Your task to perform on an android device: Go to battery settings Image 0: 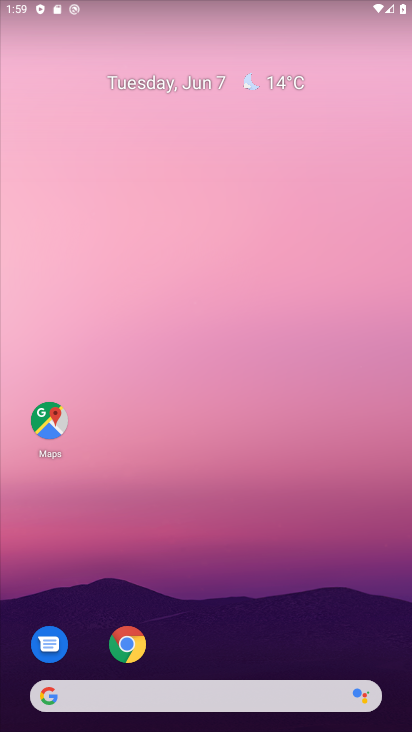
Step 0: drag from (274, 608) to (303, 120)
Your task to perform on an android device: Go to battery settings Image 1: 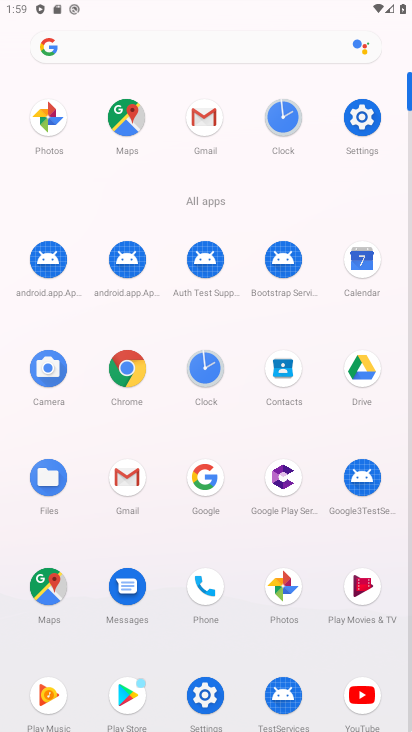
Step 1: click (368, 123)
Your task to perform on an android device: Go to battery settings Image 2: 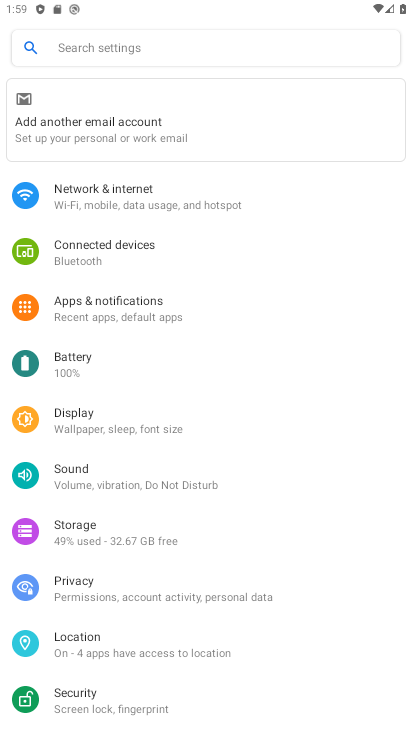
Step 2: drag from (321, 399) to (313, 259)
Your task to perform on an android device: Go to battery settings Image 3: 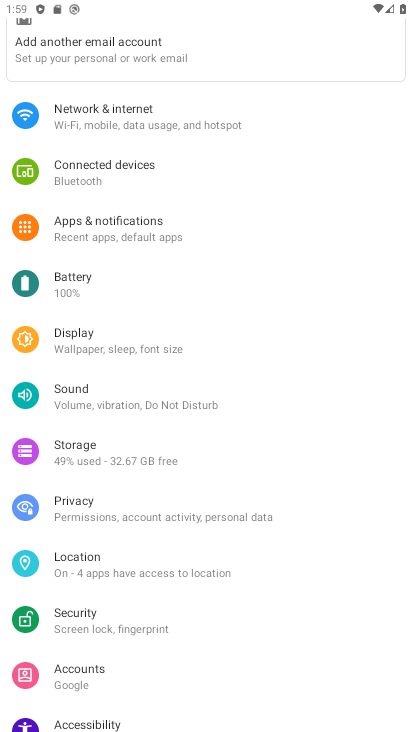
Step 3: click (154, 285)
Your task to perform on an android device: Go to battery settings Image 4: 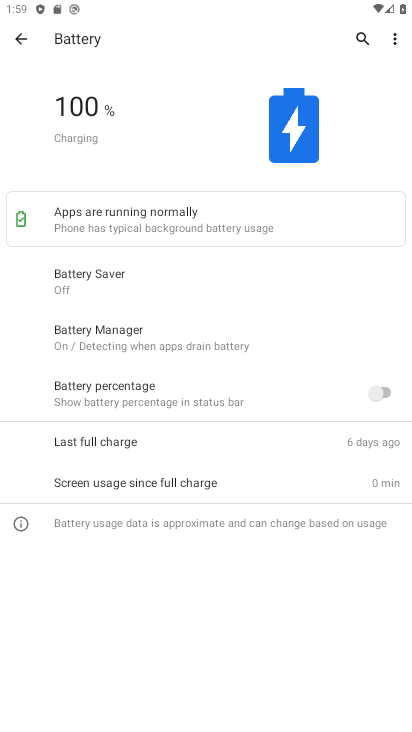
Step 4: task complete